Your task to perform on an android device: Open Google Maps Image 0: 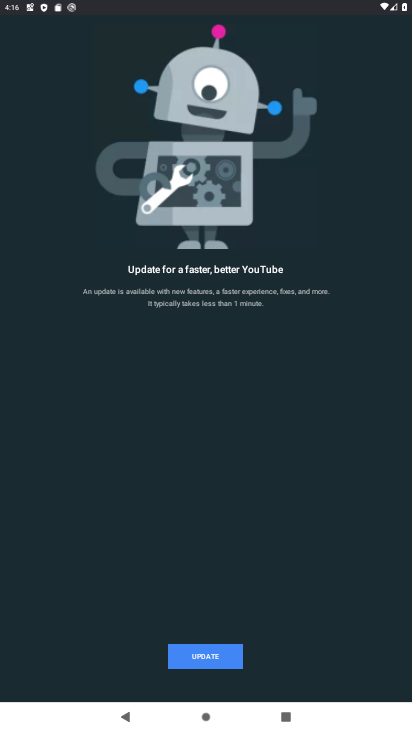
Step 0: press back button
Your task to perform on an android device: Open Google Maps Image 1: 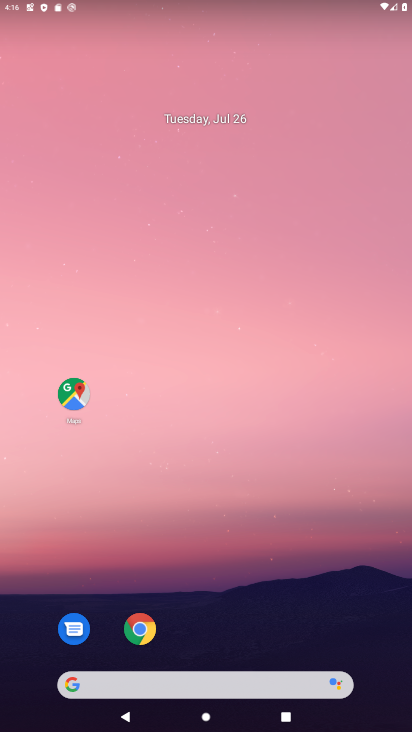
Step 1: click (72, 389)
Your task to perform on an android device: Open Google Maps Image 2: 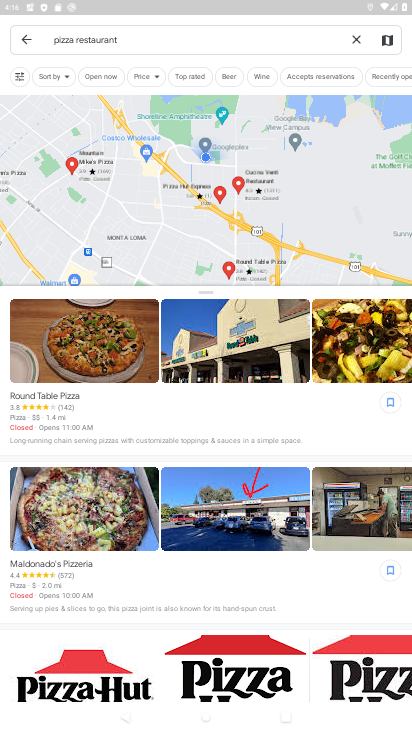
Step 2: task complete